Your task to perform on an android device: toggle priority inbox in the gmail app Image 0: 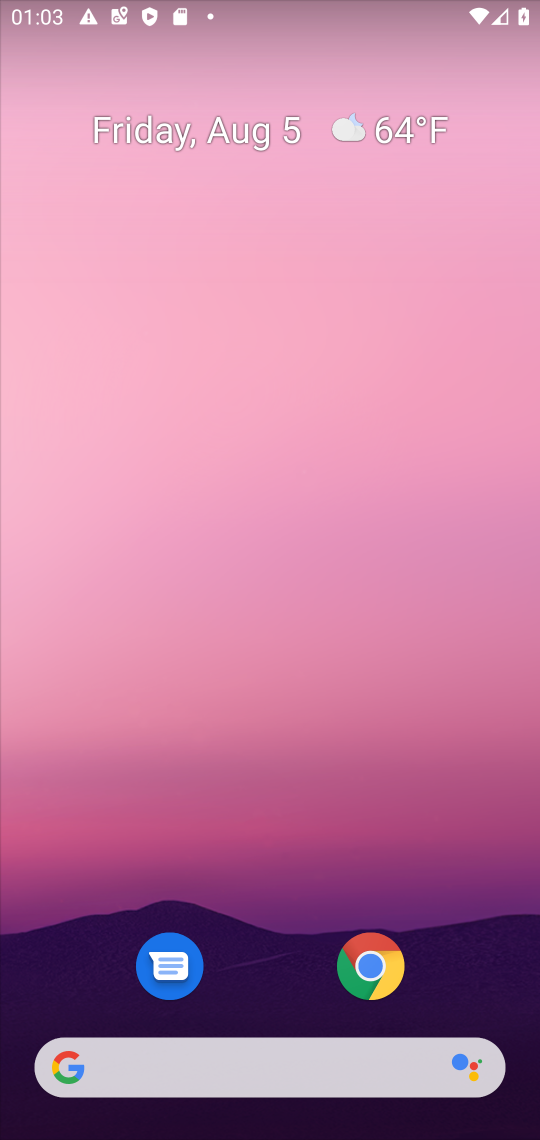
Step 0: drag from (300, 770) to (314, 2)
Your task to perform on an android device: toggle priority inbox in the gmail app Image 1: 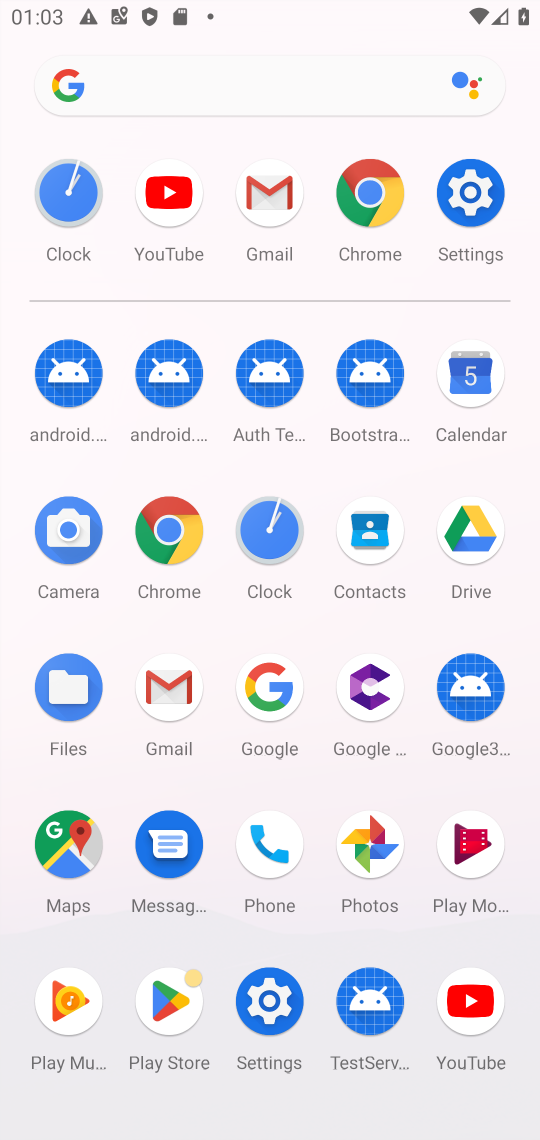
Step 1: click (263, 199)
Your task to perform on an android device: toggle priority inbox in the gmail app Image 2: 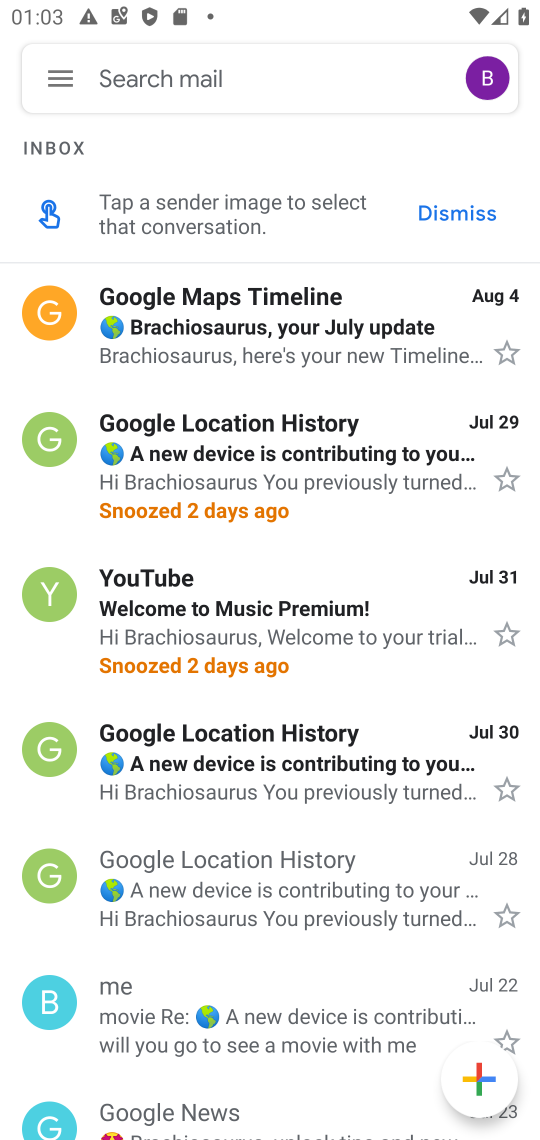
Step 2: click (56, 74)
Your task to perform on an android device: toggle priority inbox in the gmail app Image 3: 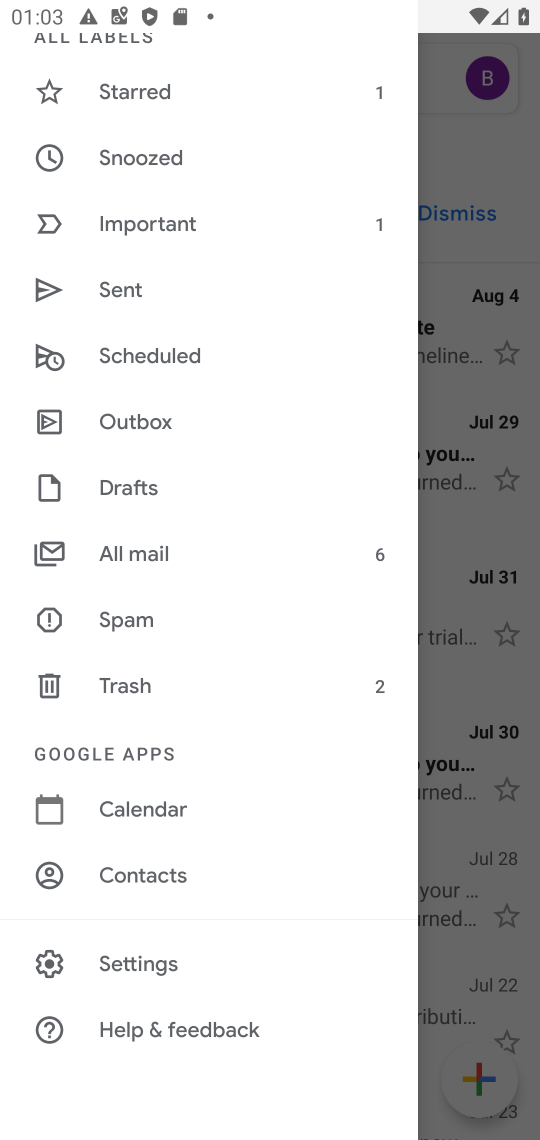
Step 3: click (147, 956)
Your task to perform on an android device: toggle priority inbox in the gmail app Image 4: 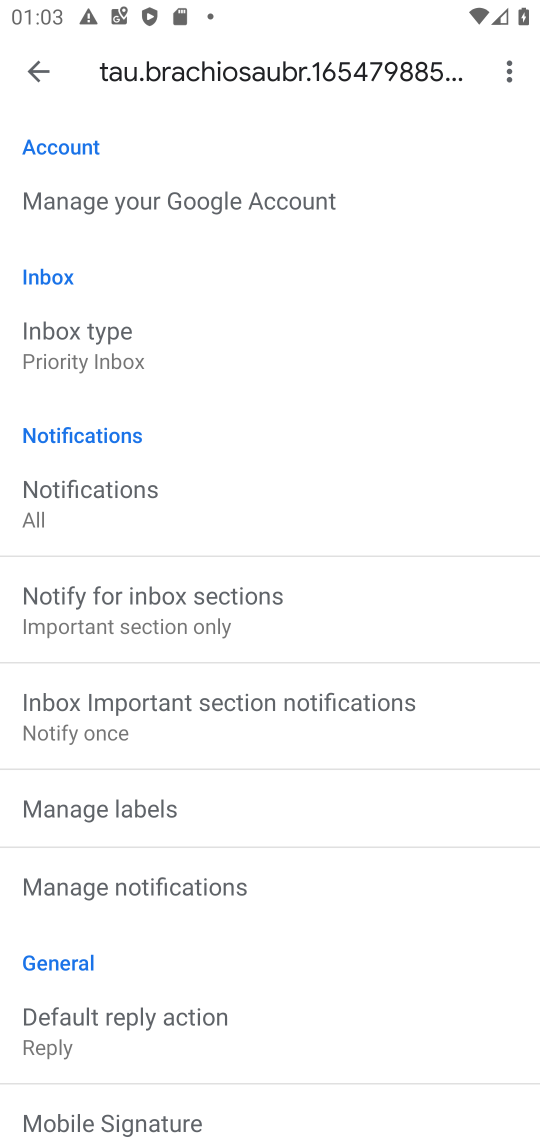
Step 4: click (128, 341)
Your task to perform on an android device: toggle priority inbox in the gmail app Image 5: 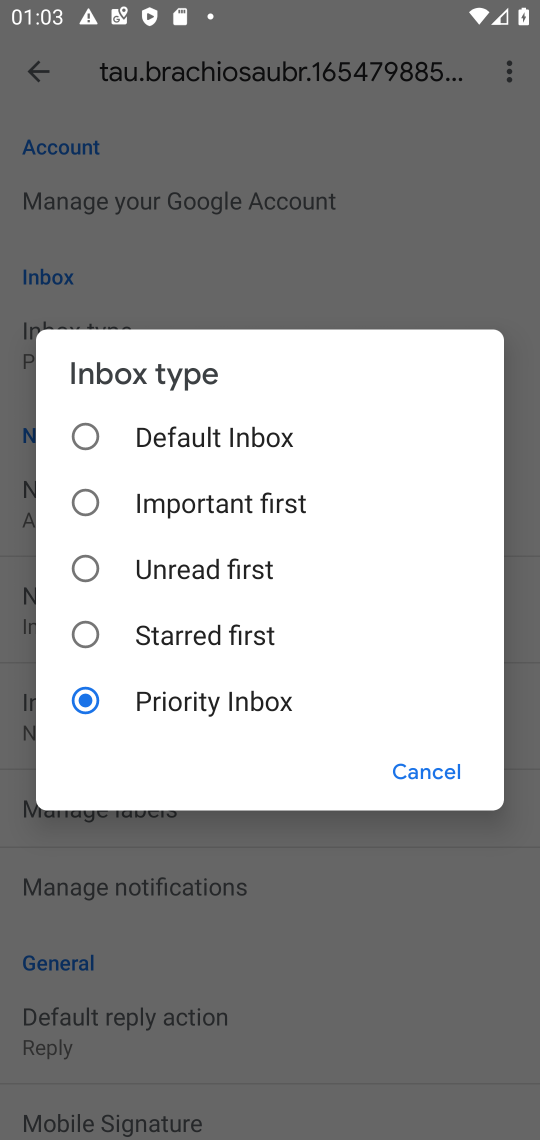
Step 5: click (78, 425)
Your task to perform on an android device: toggle priority inbox in the gmail app Image 6: 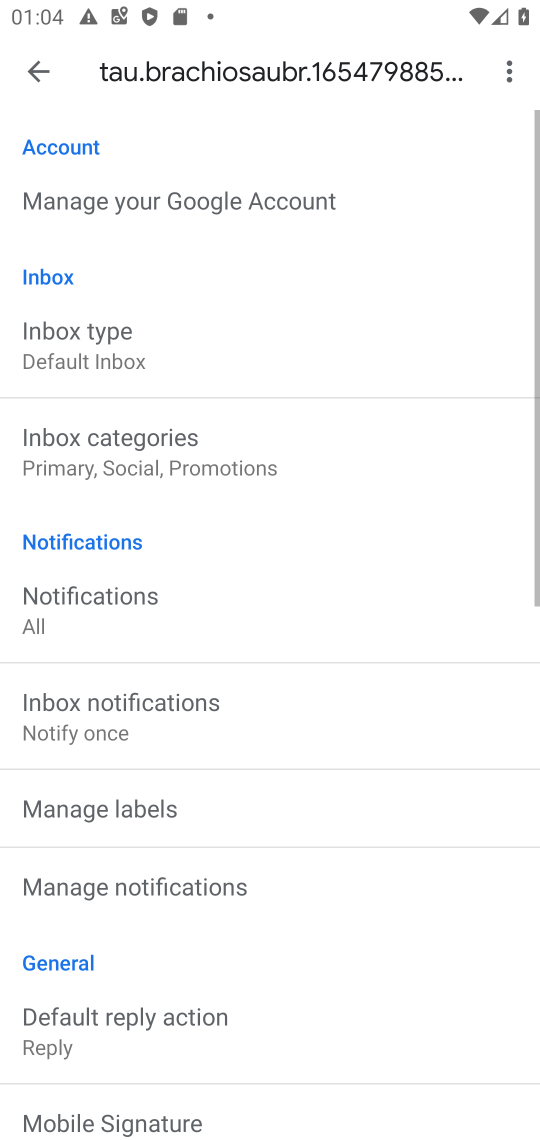
Step 6: task complete